Your task to perform on an android device: toggle notifications settings in the gmail app Image 0: 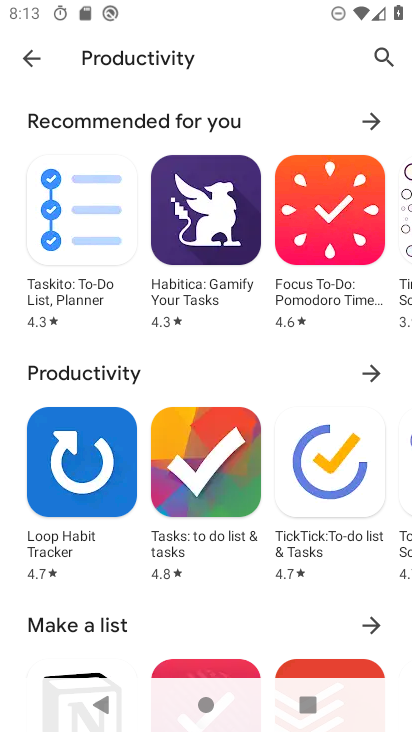
Step 0: press home button
Your task to perform on an android device: toggle notifications settings in the gmail app Image 1: 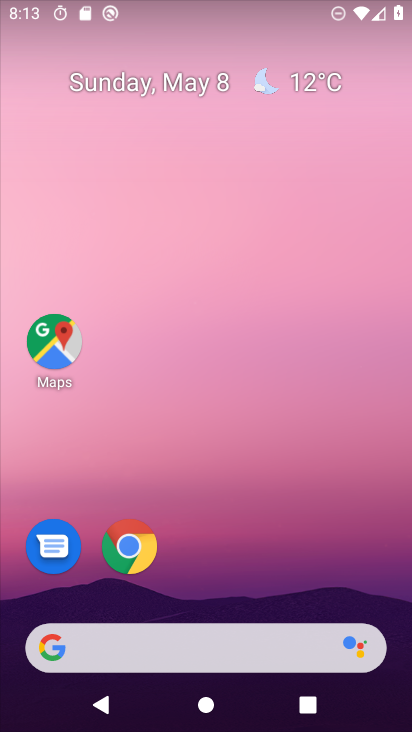
Step 1: drag from (302, 460) to (300, 63)
Your task to perform on an android device: toggle notifications settings in the gmail app Image 2: 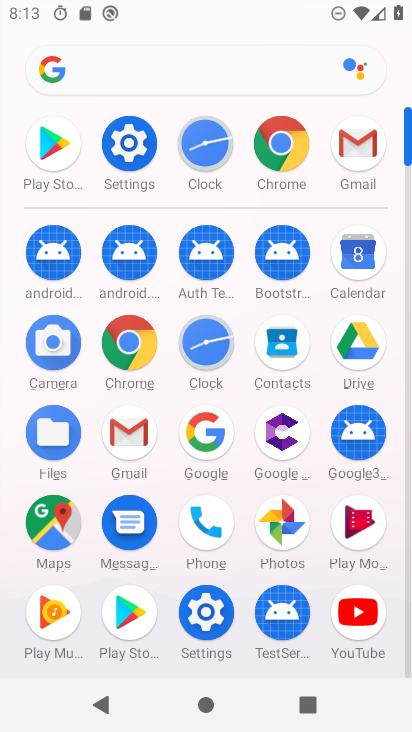
Step 2: click (361, 141)
Your task to perform on an android device: toggle notifications settings in the gmail app Image 3: 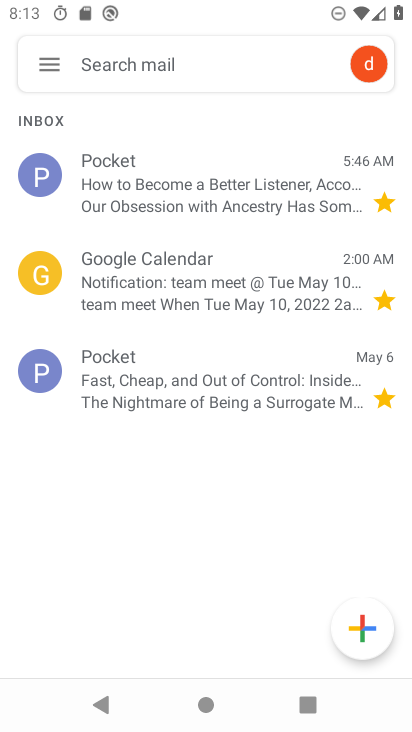
Step 3: click (43, 58)
Your task to perform on an android device: toggle notifications settings in the gmail app Image 4: 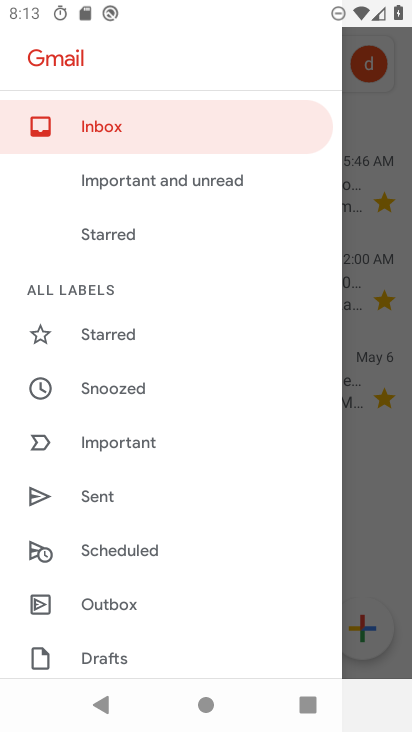
Step 4: drag from (192, 644) to (197, 181)
Your task to perform on an android device: toggle notifications settings in the gmail app Image 5: 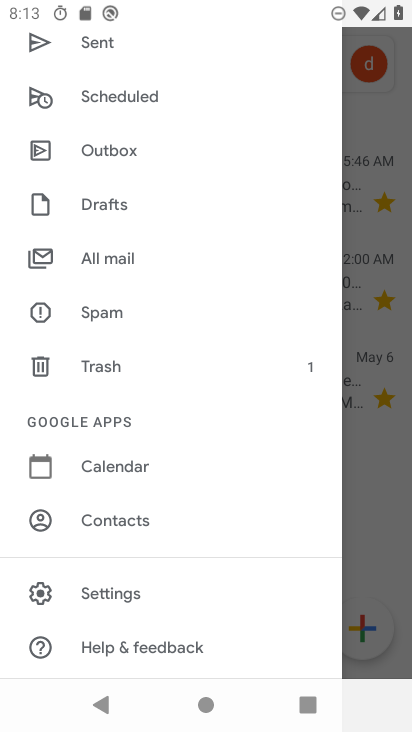
Step 5: click (113, 589)
Your task to perform on an android device: toggle notifications settings in the gmail app Image 6: 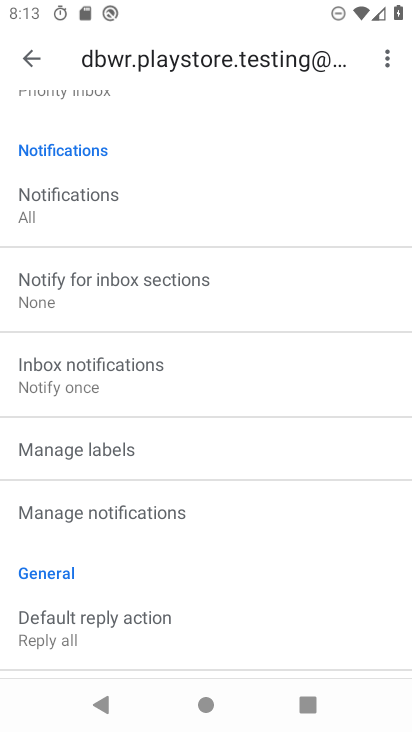
Step 6: click (153, 513)
Your task to perform on an android device: toggle notifications settings in the gmail app Image 7: 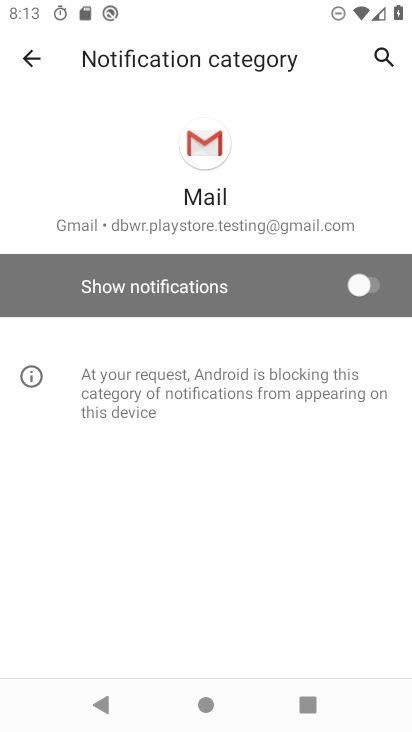
Step 7: click (361, 288)
Your task to perform on an android device: toggle notifications settings in the gmail app Image 8: 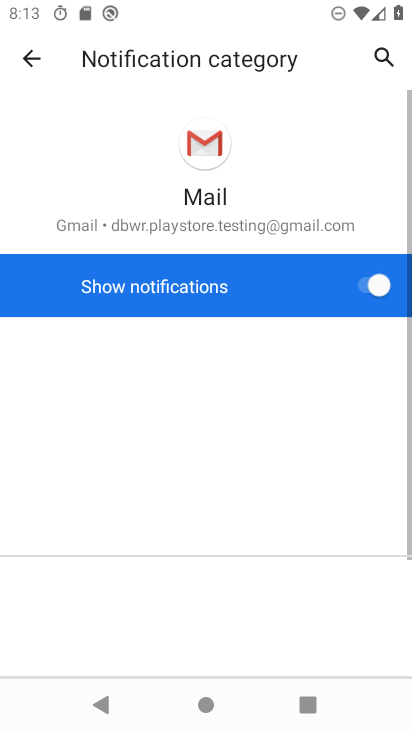
Step 8: click (368, 301)
Your task to perform on an android device: toggle notifications settings in the gmail app Image 9: 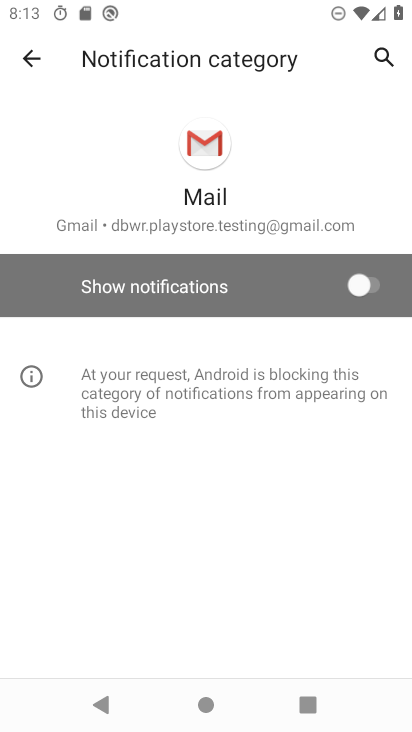
Step 9: click (368, 301)
Your task to perform on an android device: toggle notifications settings in the gmail app Image 10: 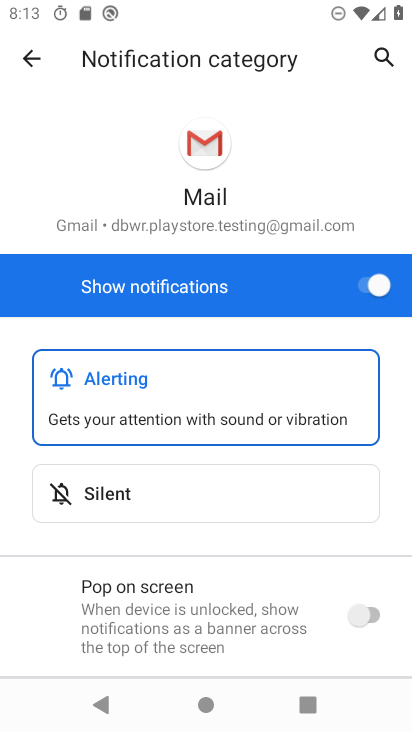
Step 10: task complete